Your task to perform on an android device: open wifi settings Image 0: 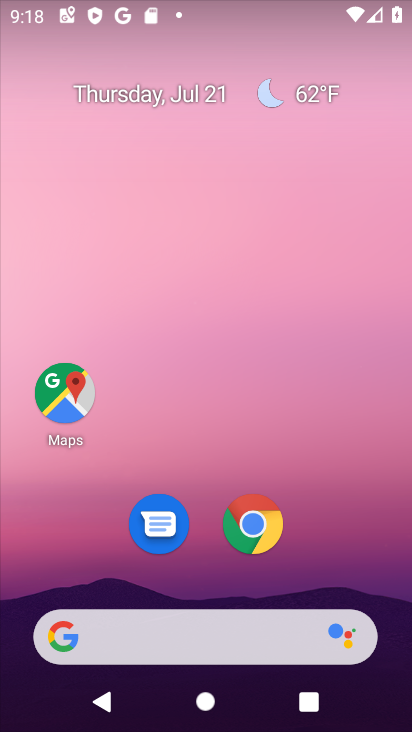
Step 0: press home button
Your task to perform on an android device: open wifi settings Image 1: 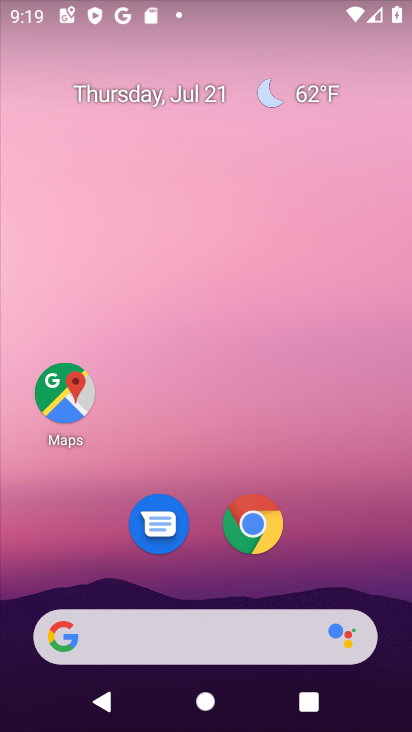
Step 1: drag from (224, 634) to (237, 42)
Your task to perform on an android device: open wifi settings Image 2: 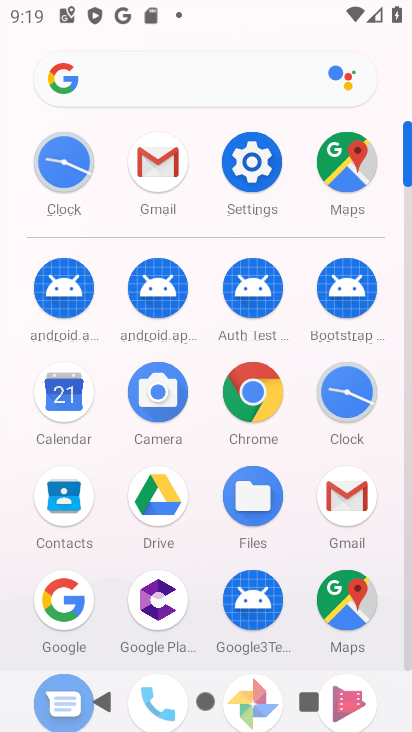
Step 2: click (257, 153)
Your task to perform on an android device: open wifi settings Image 3: 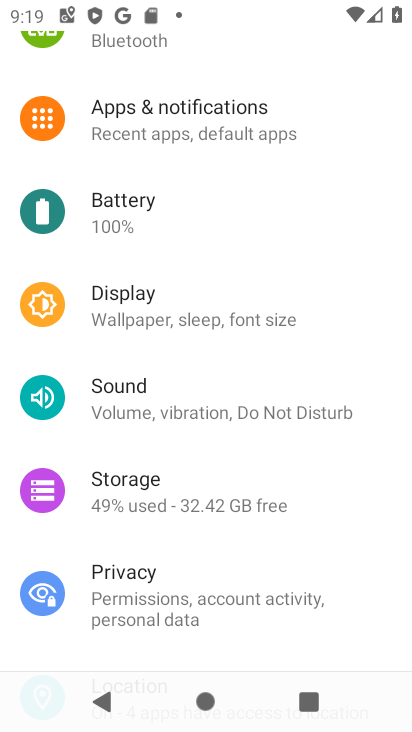
Step 3: drag from (329, 84) to (289, 557)
Your task to perform on an android device: open wifi settings Image 4: 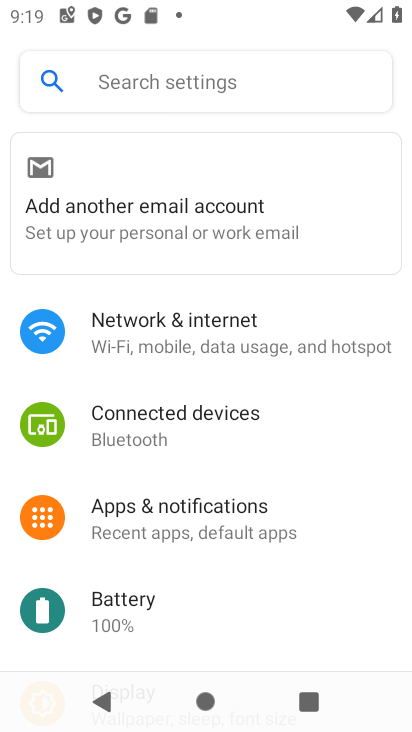
Step 4: click (212, 330)
Your task to perform on an android device: open wifi settings Image 5: 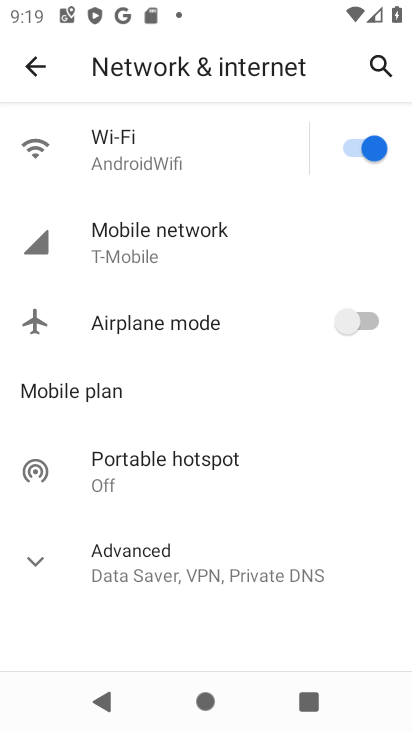
Step 5: click (144, 152)
Your task to perform on an android device: open wifi settings Image 6: 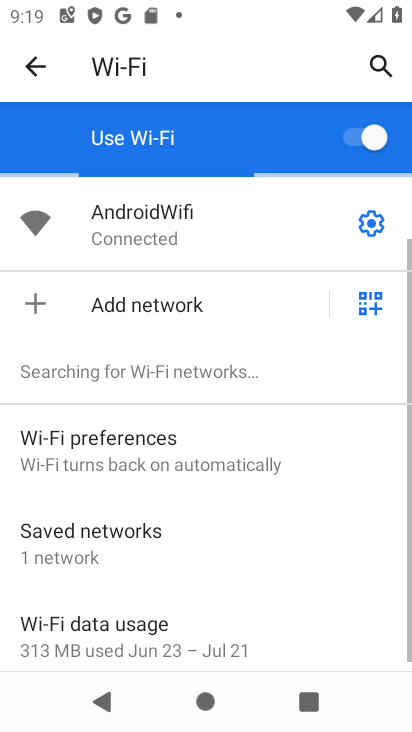
Step 6: task complete